Your task to perform on an android device: turn on bluetooth scan Image 0: 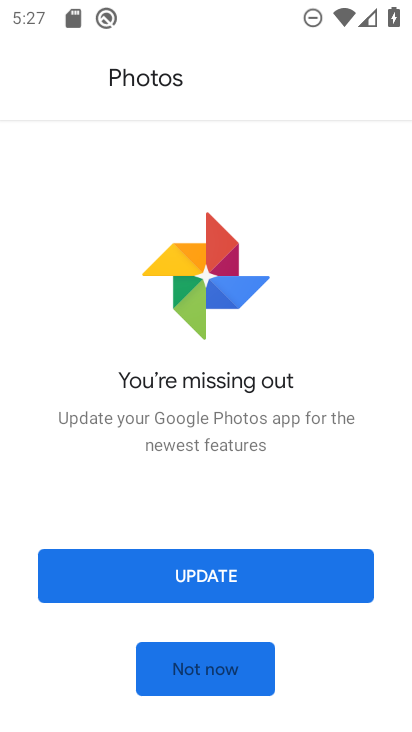
Step 0: press back button
Your task to perform on an android device: turn on bluetooth scan Image 1: 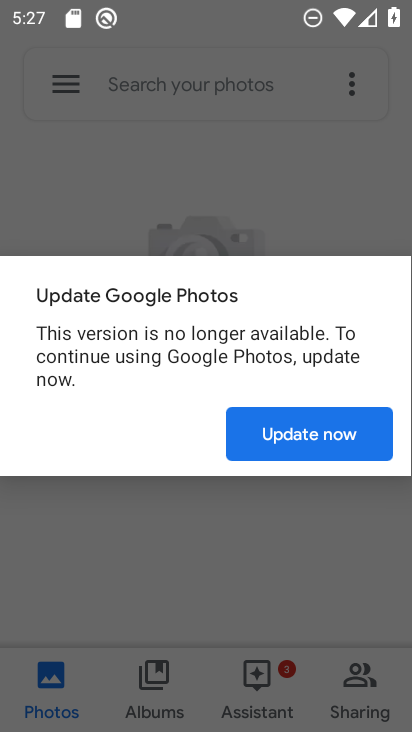
Step 1: press home button
Your task to perform on an android device: turn on bluetooth scan Image 2: 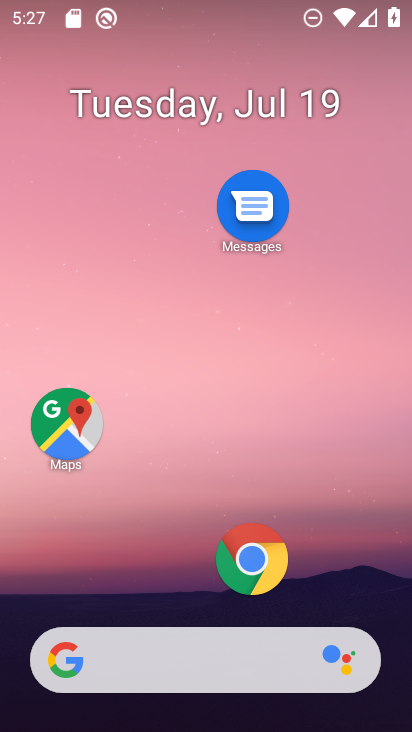
Step 2: drag from (149, 572) to (228, 21)
Your task to perform on an android device: turn on bluetooth scan Image 3: 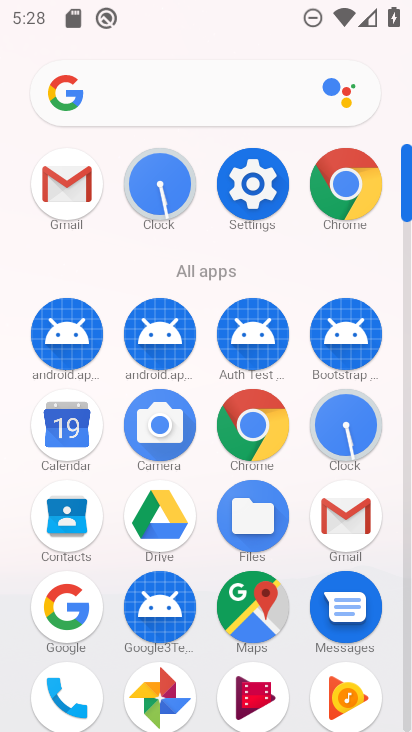
Step 3: click (266, 179)
Your task to perform on an android device: turn on bluetooth scan Image 4: 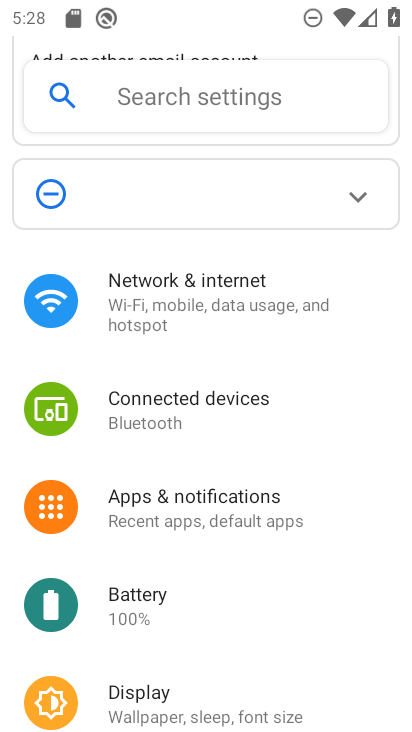
Step 4: click (161, 411)
Your task to perform on an android device: turn on bluetooth scan Image 5: 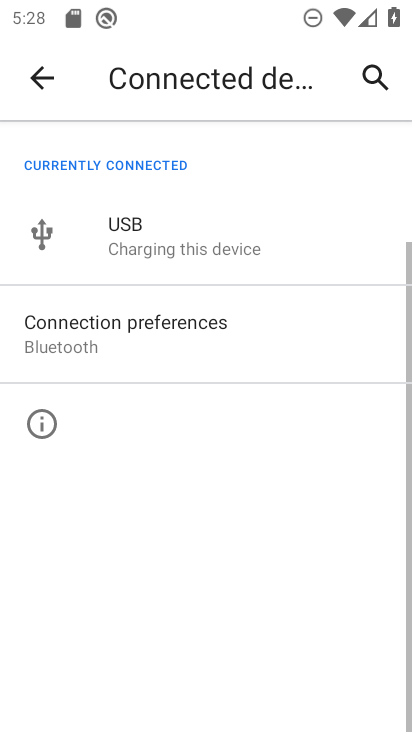
Step 5: click (104, 334)
Your task to perform on an android device: turn on bluetooth scan Image 6: 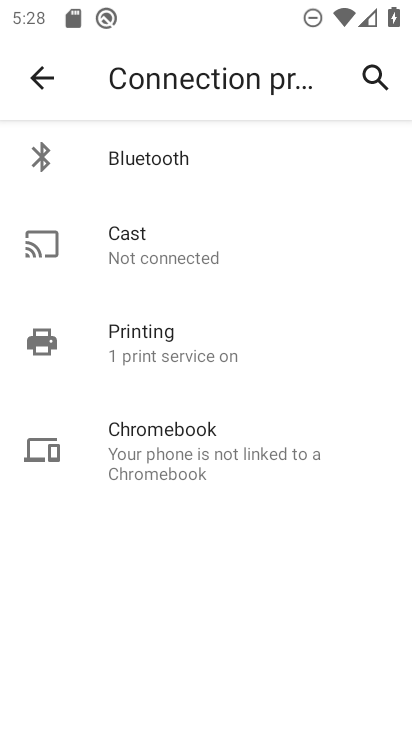
Step 6: click (149, 155)
Your task to perform on an android device: turn on bluetooth scan Image 7: 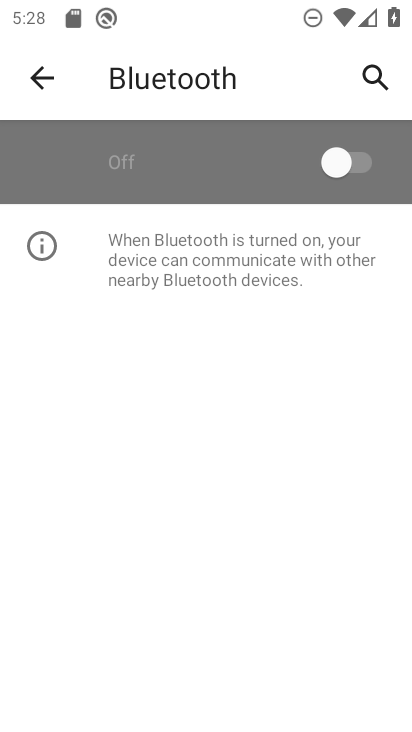
Step 7: click (341, 156)
Your task to perform on an android device: turn on bluetooth scan Image 8: 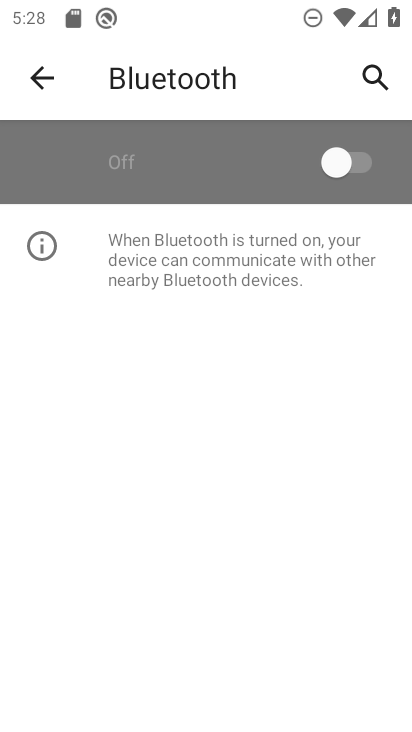
Step 8: task complete